Your task to perform on an android device: see creations saved in the google photos Image 0: 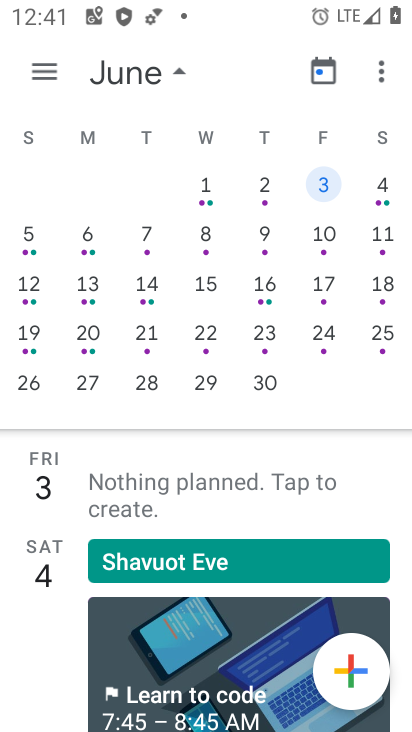
Step 0: press home button
Your task to perform on an android device: see creations saved in the google photos Image 1: 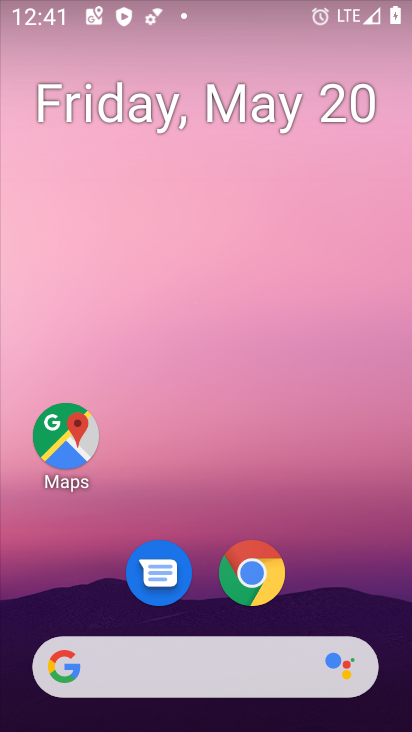
Step 1: drag from (354, 542) to (340, 79)
Your task to perform on an android device: see creations saved in the google photos Image 2: 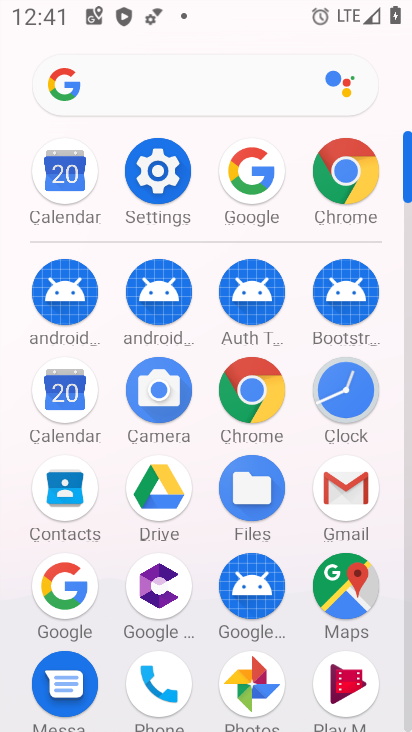
Step 2: drag from (294, 355) to (283, 70)
Your task to perform on an android device: see creations saved in the google photos Image 3: 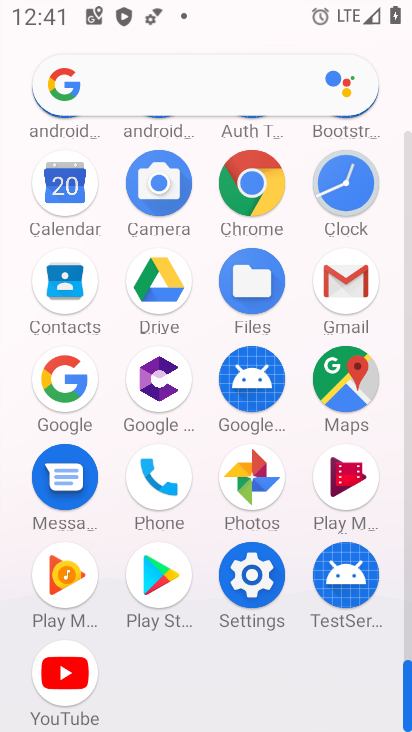
Step 3: click (251, 479)
Your task to perform on an android device: see creations saved in the google photos Image 4: 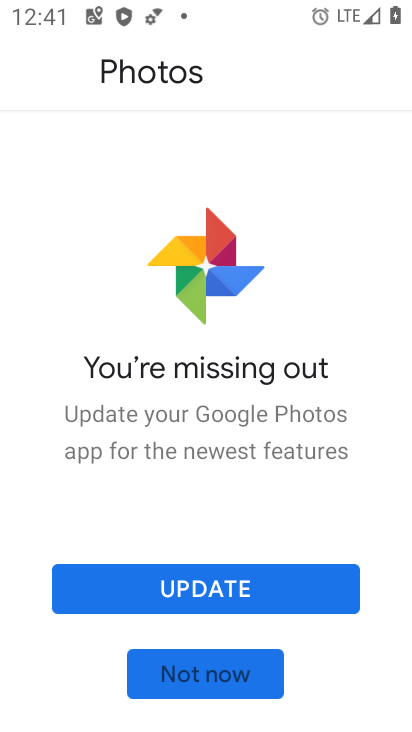
Step 4: click (203, 589)
Your task to perform on an android device: see creations saved in the google photos Image 5: 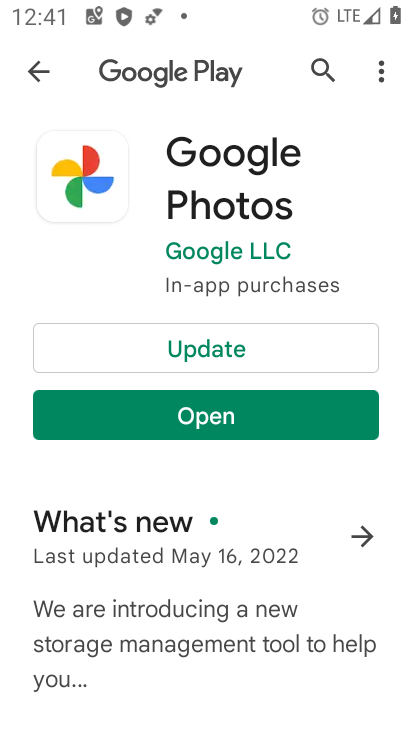
Step 5: click (178, 329)
Your task to perform on an android device: see creations saved in the google photos Image 6: 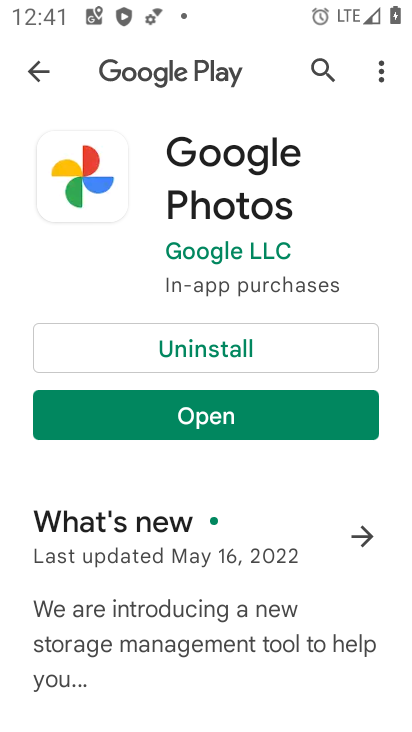
Step 6: click (237, 418)
Your task to perform on an android device: see creations saved in the google photos Image 7: 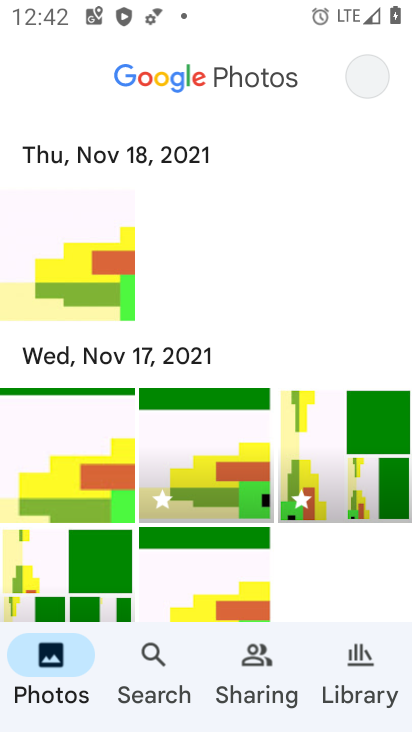
Step 7: click (156, 683)
Your task to perform on an android device: see creations saved in the google photos Image 8: 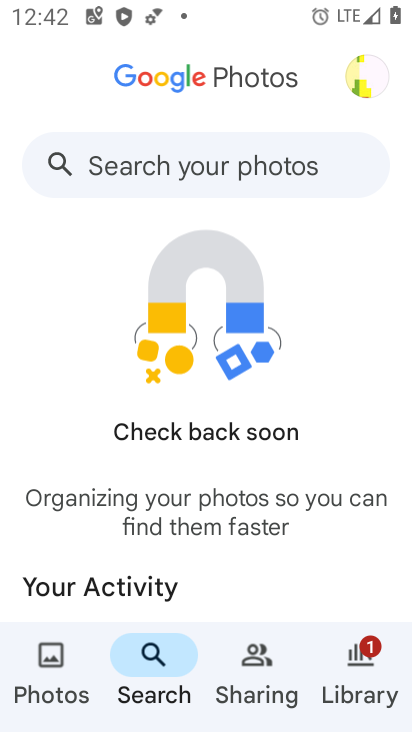
Step 8: click (156, 164)
Your task to perform on an android device: see creations saved in the google photos Image 9: 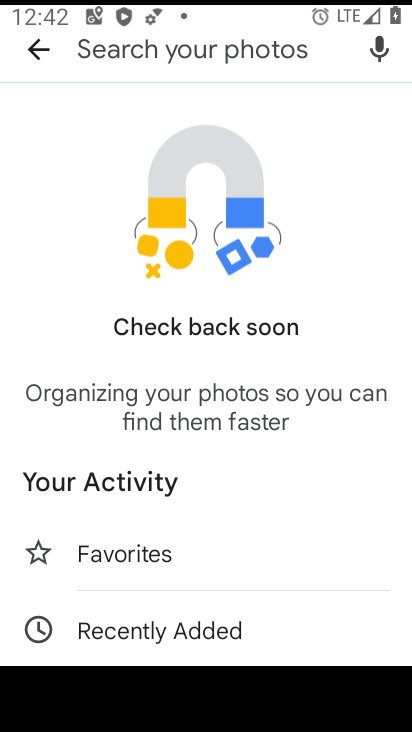
Step 9: drag from (271, 536) to (259, 112)
Your task to perform on an android device: see creations saved in the google photos Image 10: 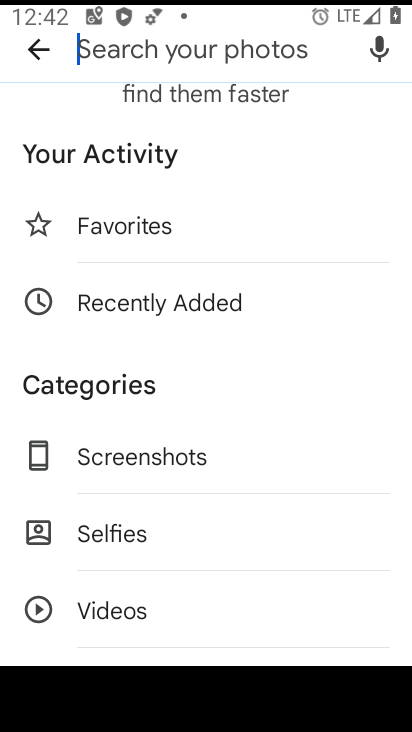
Step 10: drag from (240, 563) to (274, 75)
Your task to perform on an android device: see creations saved in the google photos Image 11: 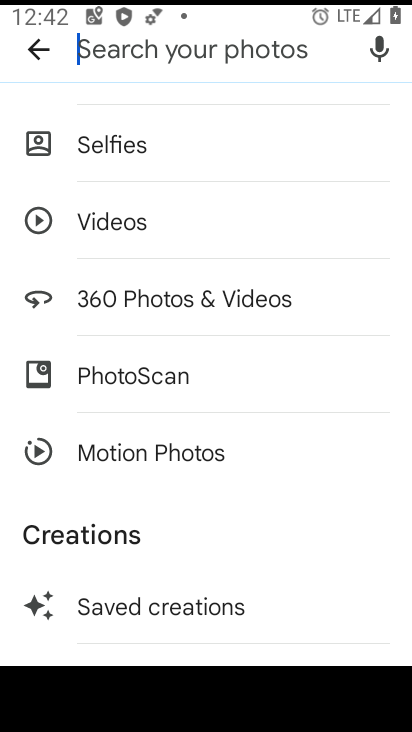
Step 11: drag from (185, 606) to (200, 271)
Your task to perform on an android device: see creations saved in the google photos Image 12: 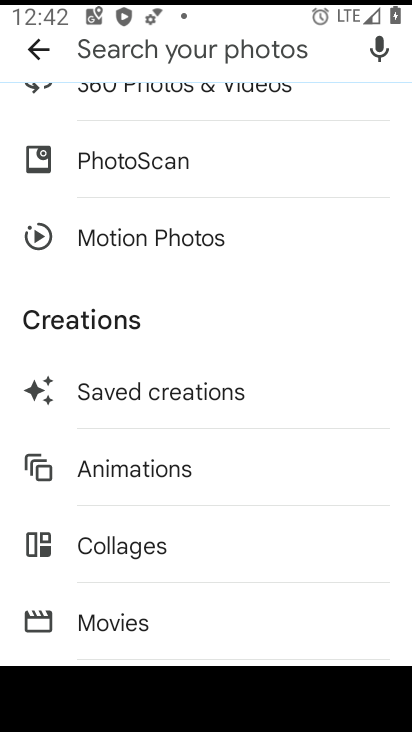
Step 12: click (103, 388)
Your task to perform on an android device: see creations saved in the google photos Image 13: 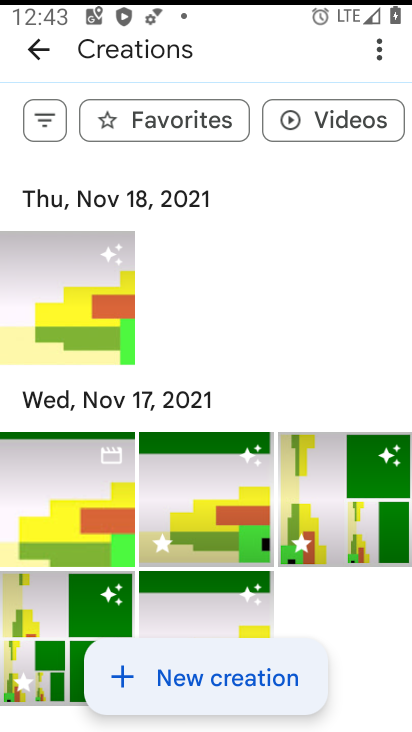
Step 13: task complete